Your task to perform on an android device: turn off sleep mode Image 0: 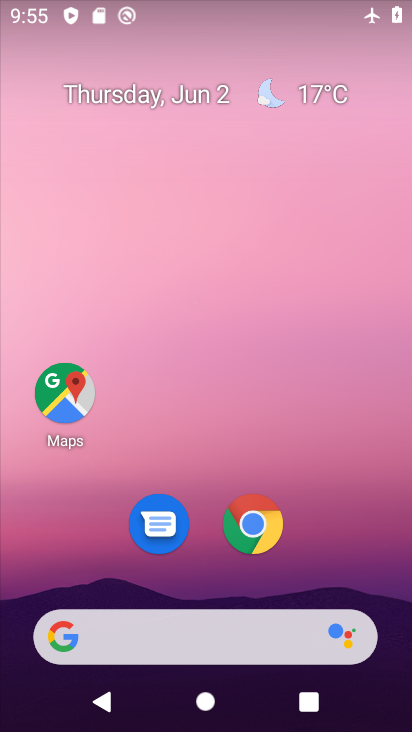
Step 0: drag from (323, 544) to (329, 1)
Your task to perform on an android device: turn off sleep mode Image 1: 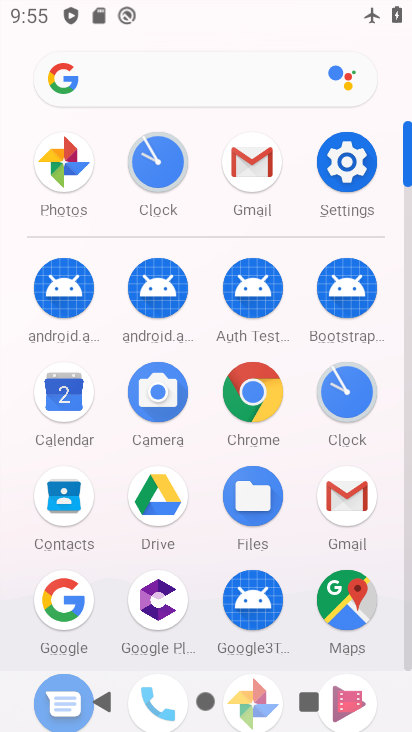
Step 1: click (337, 165)
Your task to perform on an android device: turn off sleep mode Image 2: 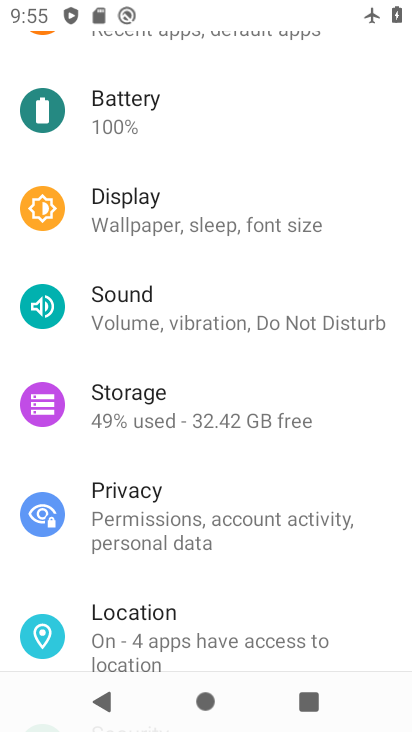
Step 2: click (283, 222)
Your task to perform on an android device: turn off sleep mode Image 3: 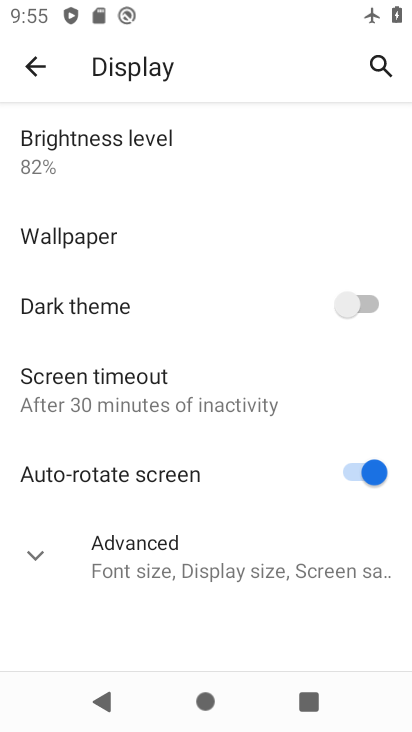
Step 3: click (38, 58)
Your task to perform on an android device: turn off sleep mode Image 4: 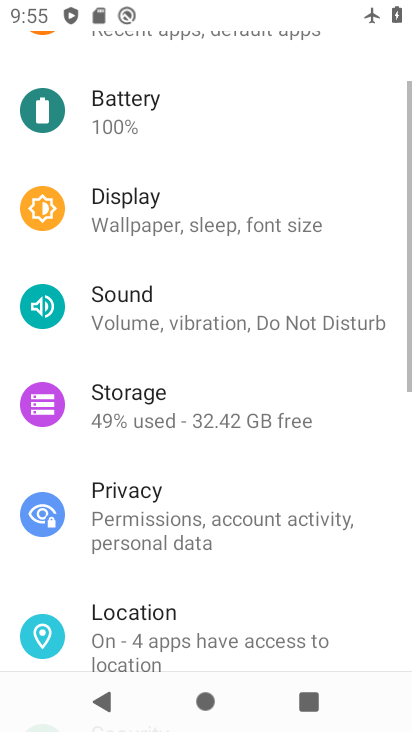
Step 4: drag from (247, 152) to (319, 597)
Your task to perform on an android device: turn off sleep mode Image 5: 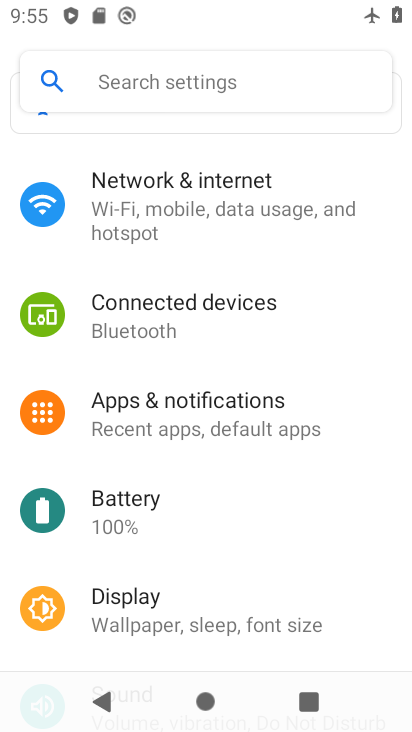
Step 5: click (228, 214)
Your task to perform on an android device: turn off sleep mode Image 6: 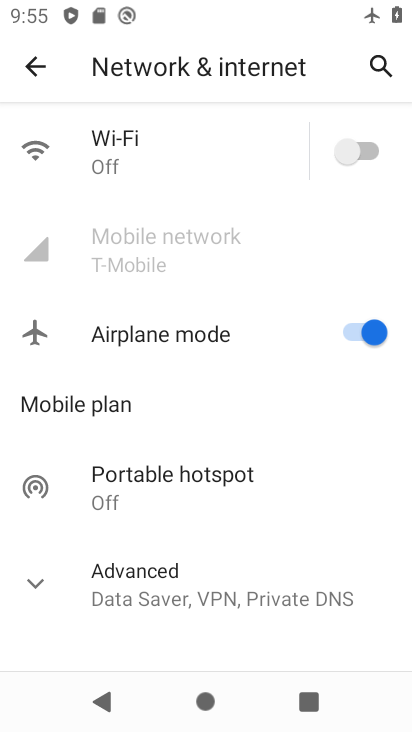
Step 6: click (357, 330)
Your task to perform on an android device: turn off sleep mode Image 7: 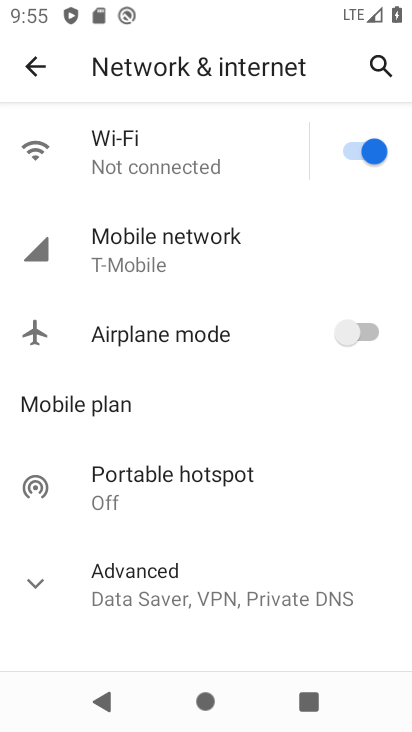
Step 7: click (39, 64)
Your task to perform on an android device: turn off sleep mode Image 8: 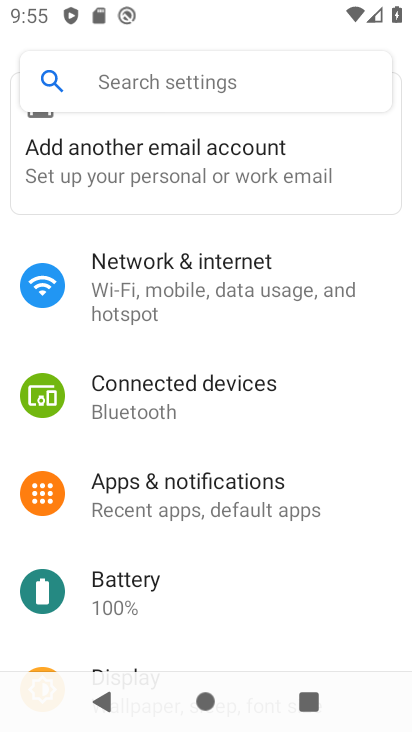
Step 8: drag from (210, 521) to (212, 136)
Your task to perform on an android device: turn off sleep mode Image 9: 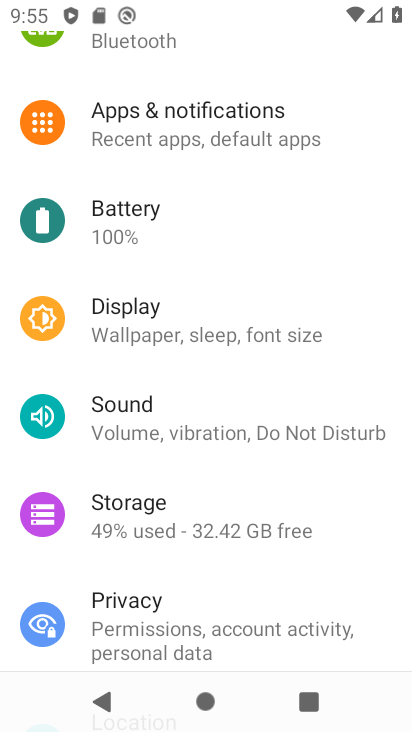
Step 9: click (222, 308)
Your task to perform on an android device: turn off sleep mode Image 10: 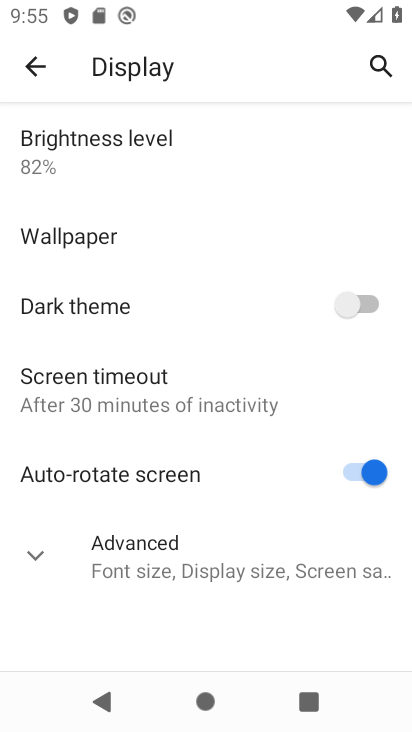
Step 10: task complete